Your task to perform on an android device: Add bose soundlink mini to the cart on bestbuy.com Image 0: 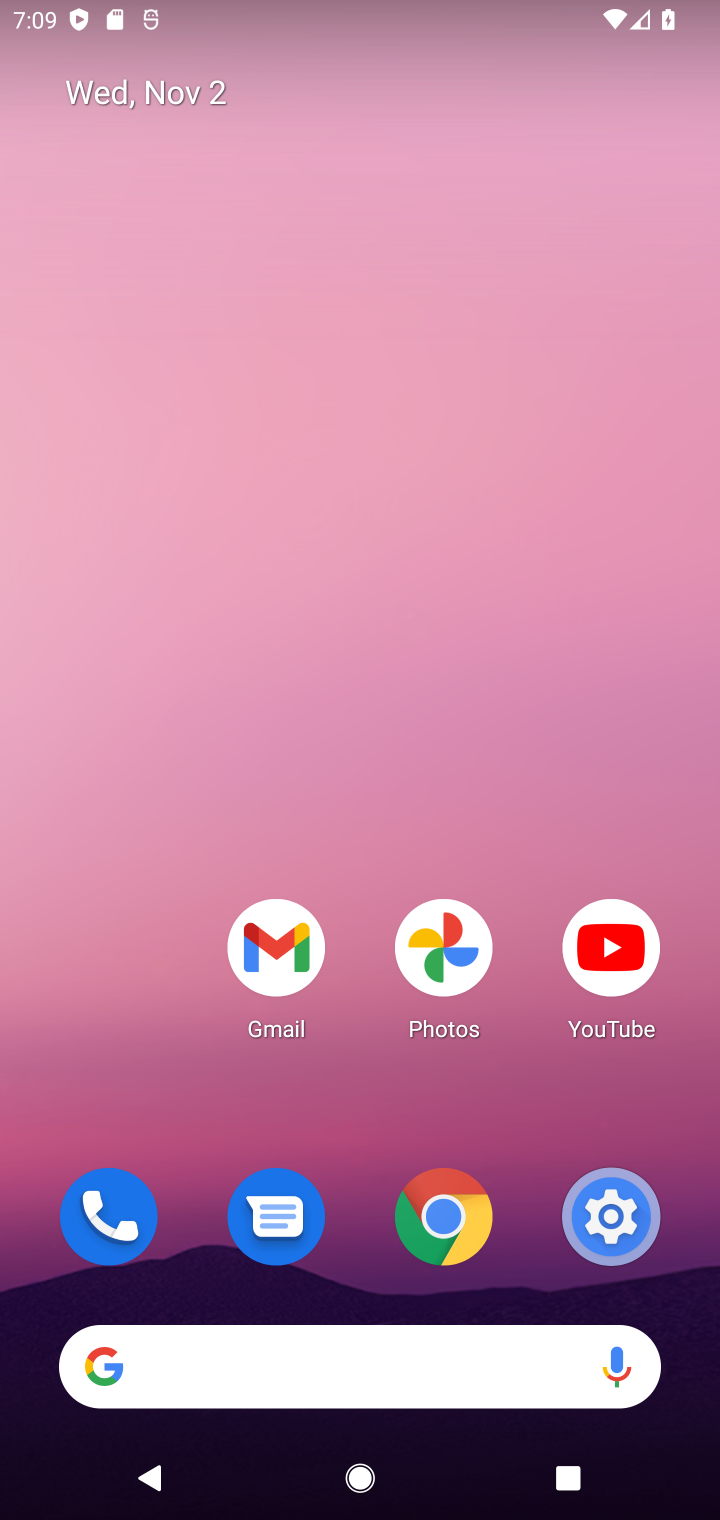
Step 0: click (441, 1251)
Your task to perform on an android device: Add bose soundlink mini to the cart on bestbuy.com Image 1: 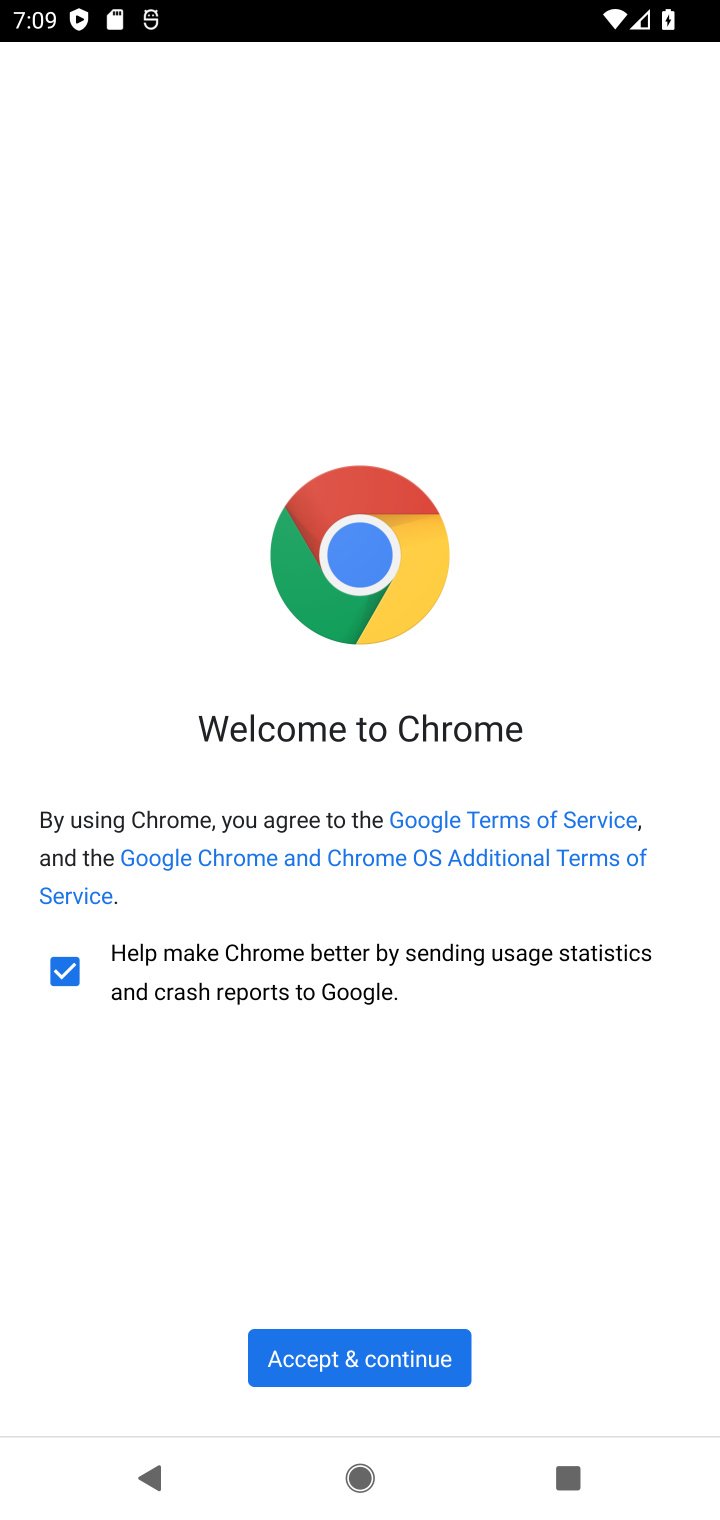
Step 1: click (356, 1366)
Your task to perform on an android device: Add bose soundlink mini to the cart on bestbuy.com Image 2: 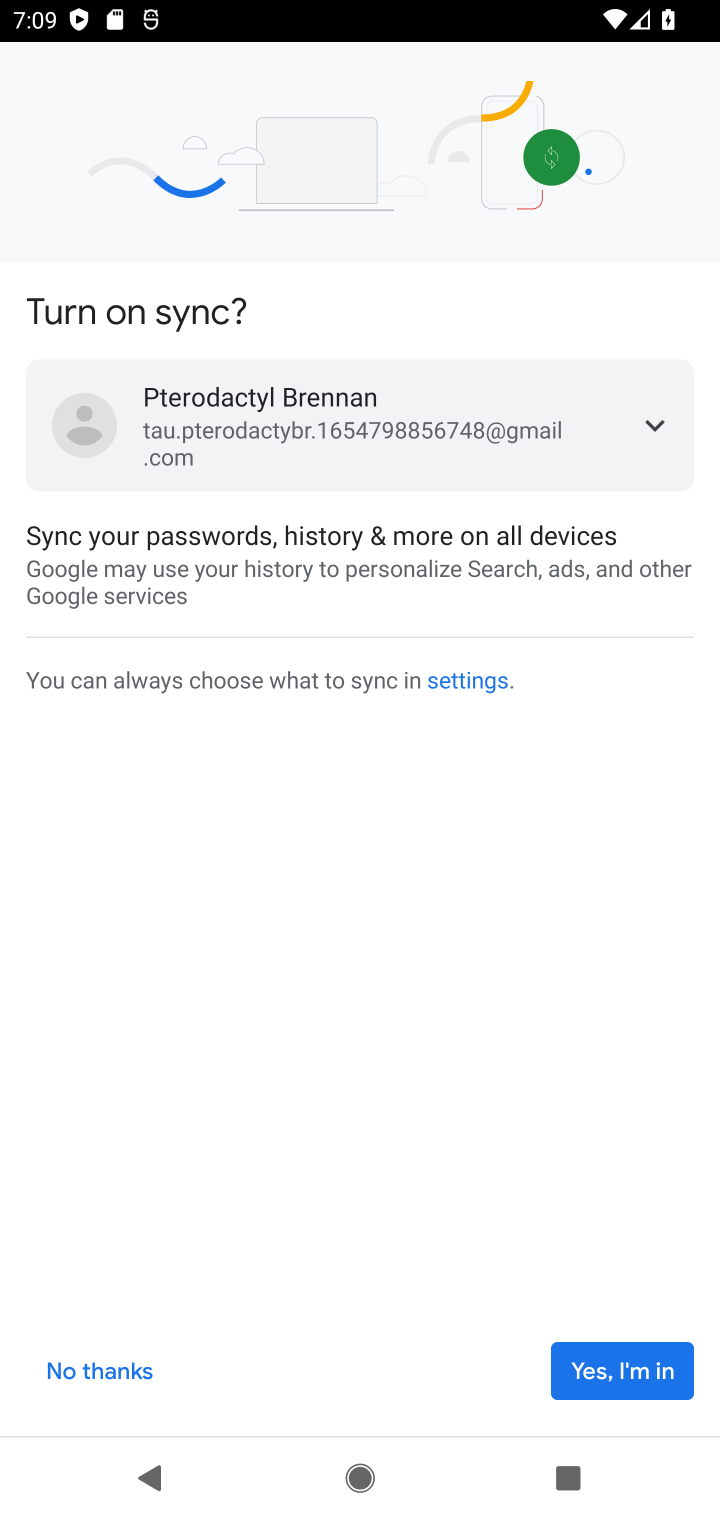
Step 2: click (604, 1385)
Your task to perform on an android device: Add bose soundlink mini to the cart on bestbuy.com Image 3: 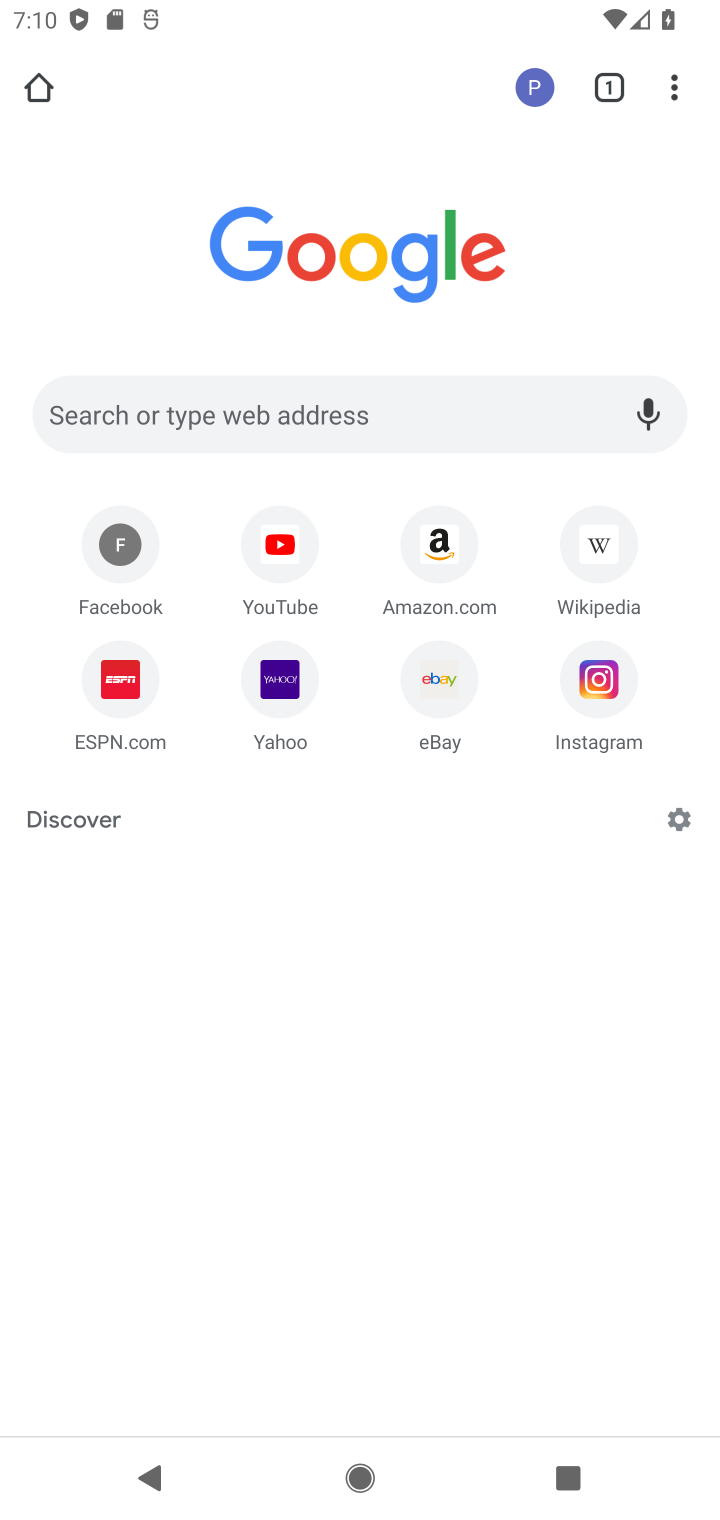
Step 3: click (431, 403)
Your task to perform on an android device: Add bose soundlink mini to the cart on bestbuy.com Image 4: 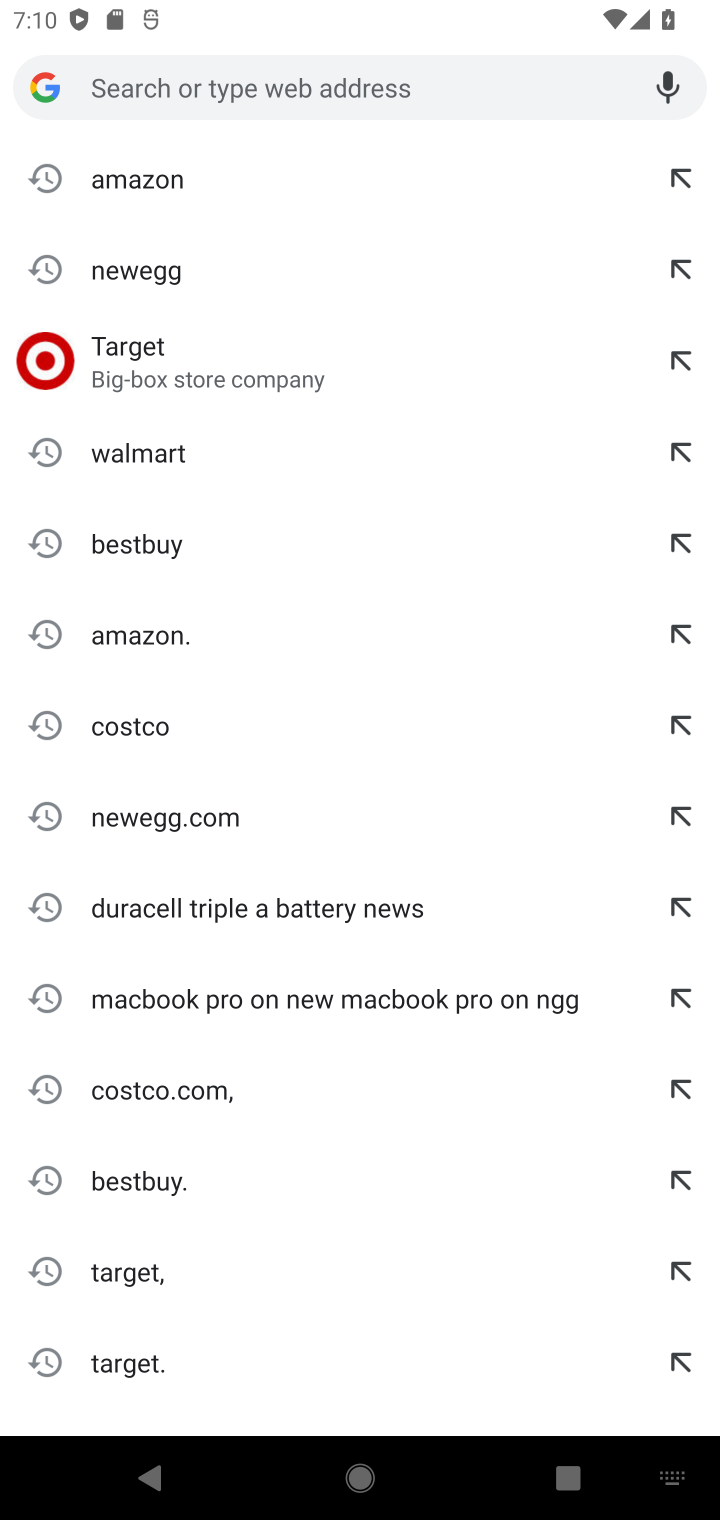
Step 4: type "bestbuy.com"
Your task to perform on an android device: Add bose soundlink mini to the cart on bestbuy.com Image 5: 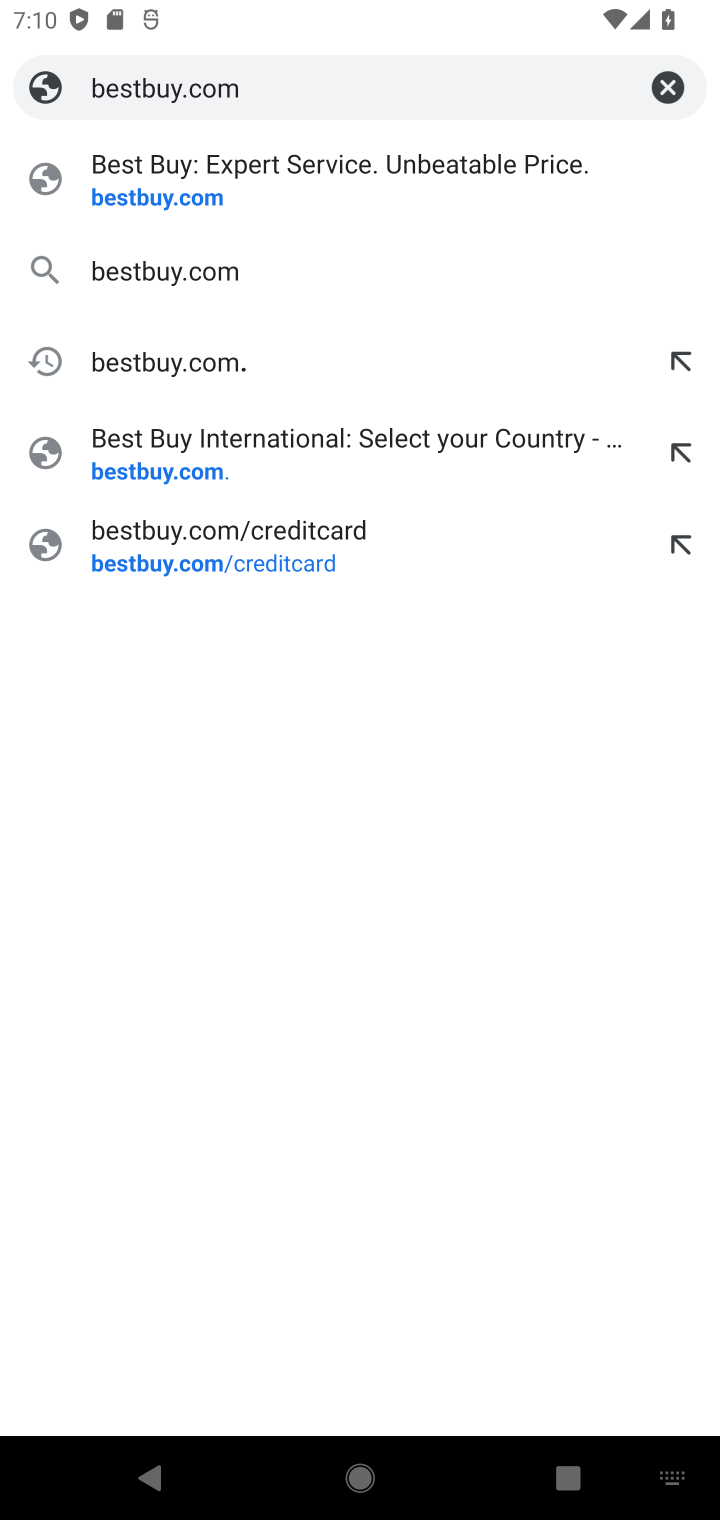
Step 5: press enter
Your task to perform on an android device: Add bose soundlink mini to the cart on bestbuy.com Image 6: 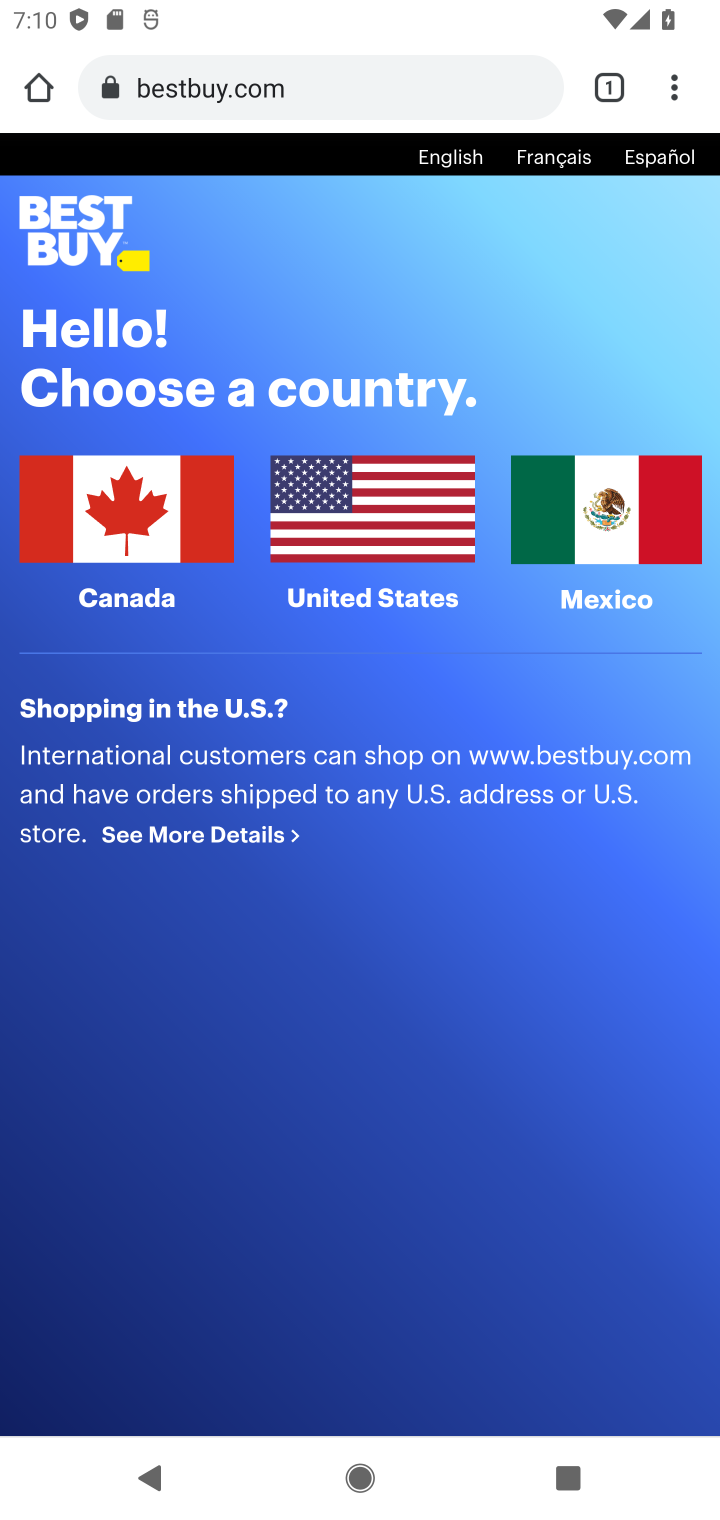
Step 6: click (369, 542)
Your task to perform on an android device: Add bose soundlink mini to the cart on bestbuy.com Image 7: 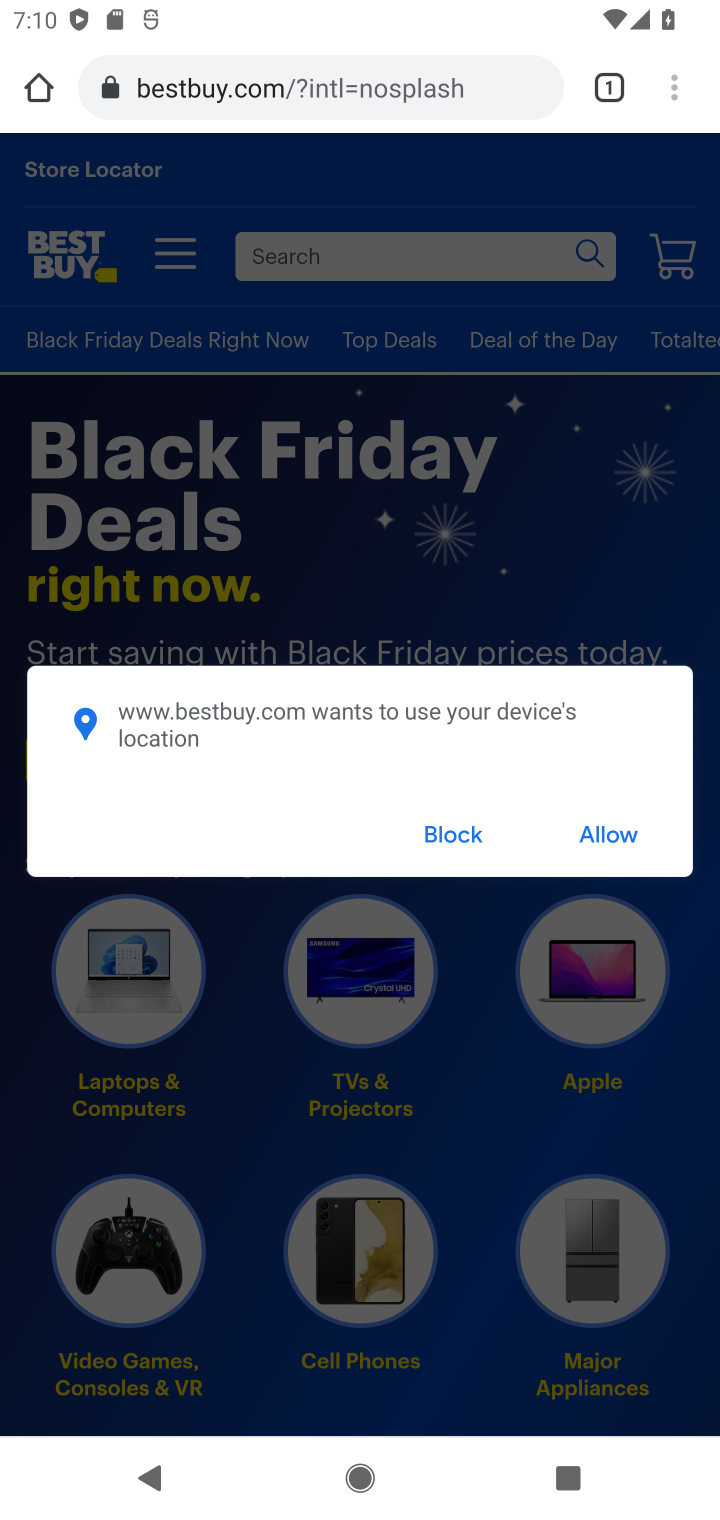
Step 7: click (414, 268)
Your task to perform on an android device: Add bose soundlink mini to the cart on bestbuy.com Image 8: 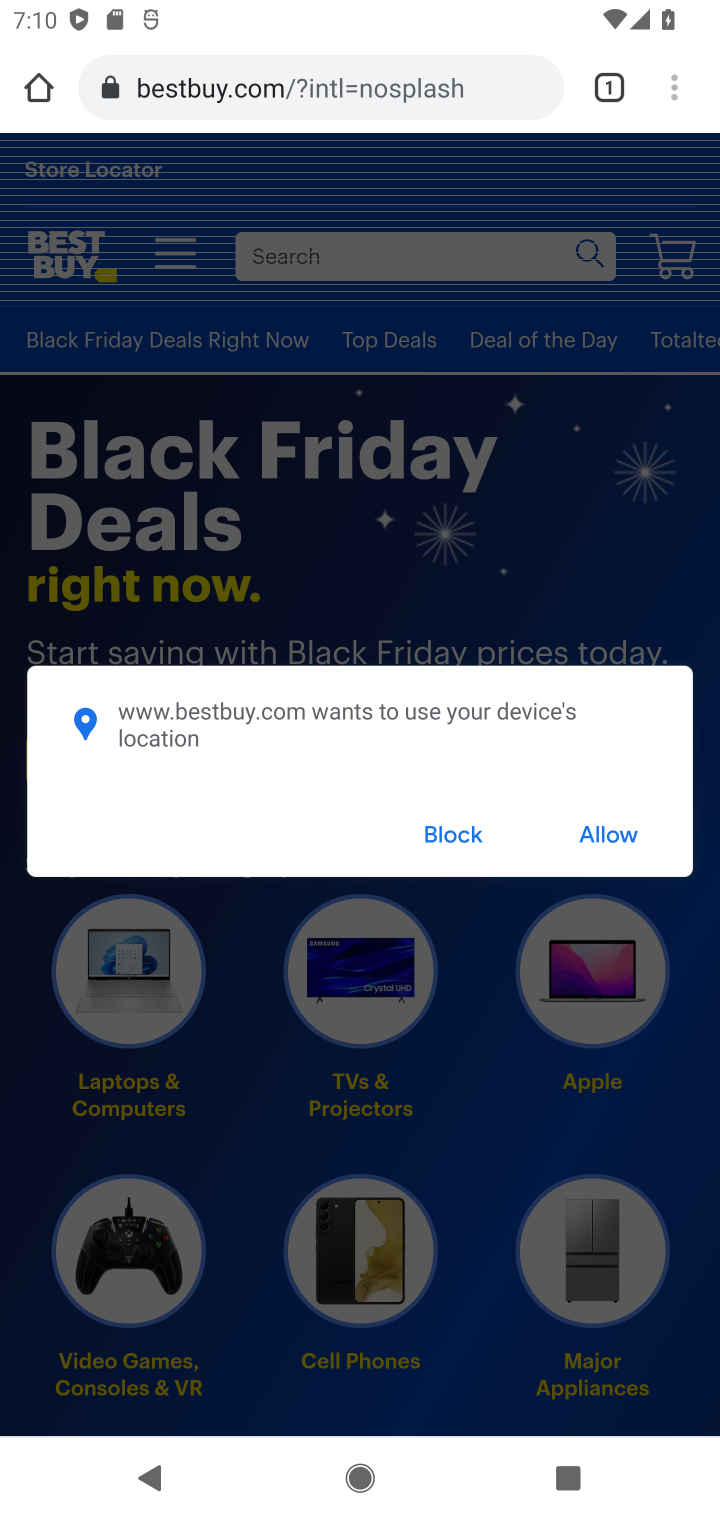
Step 8: click (592, 850)
Your task to perform on an android device: Add bose soundlink mini to the cart on bestbuy.com Image 9: 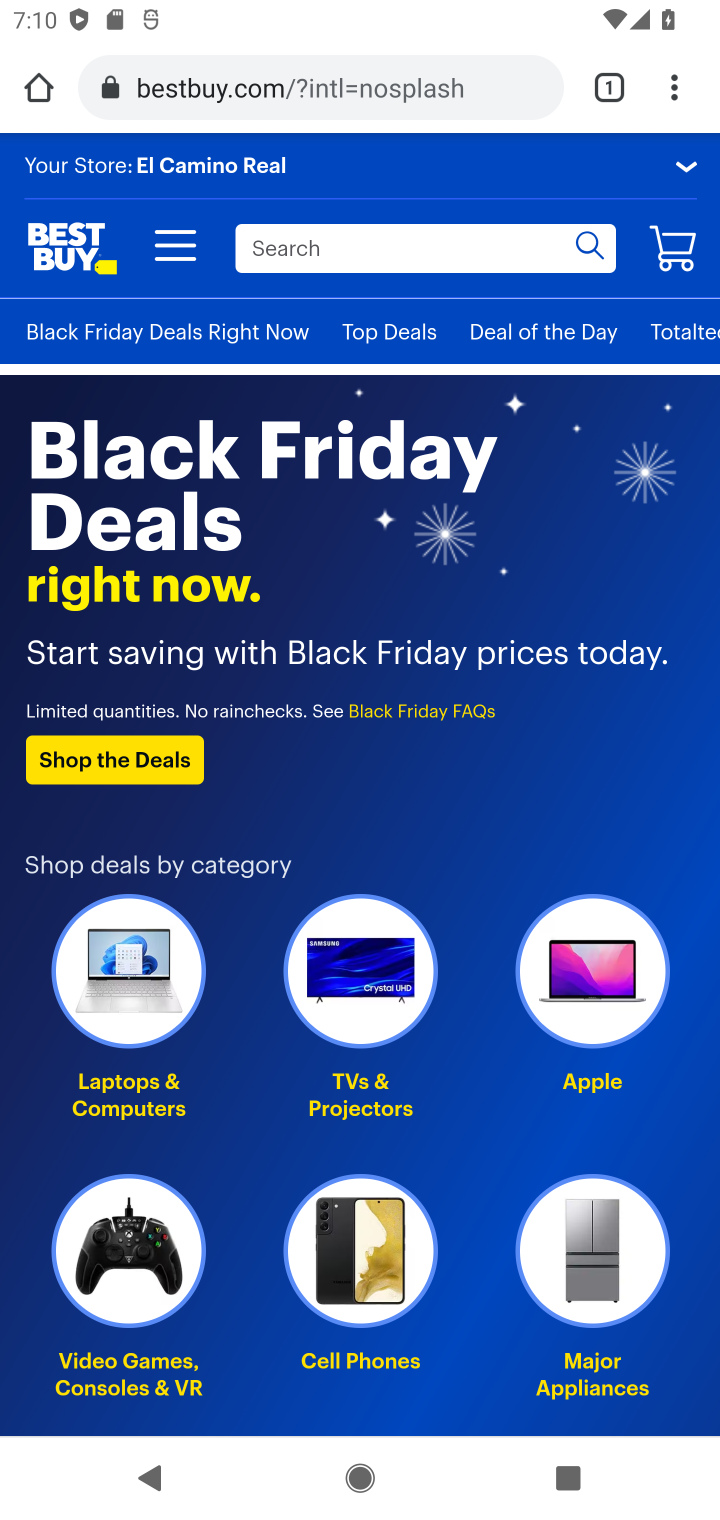
Step 9: click (418, 253)
Your task to perform on an android device: Add bose soundlink mini to the cart on bestbuy.com Image 10: 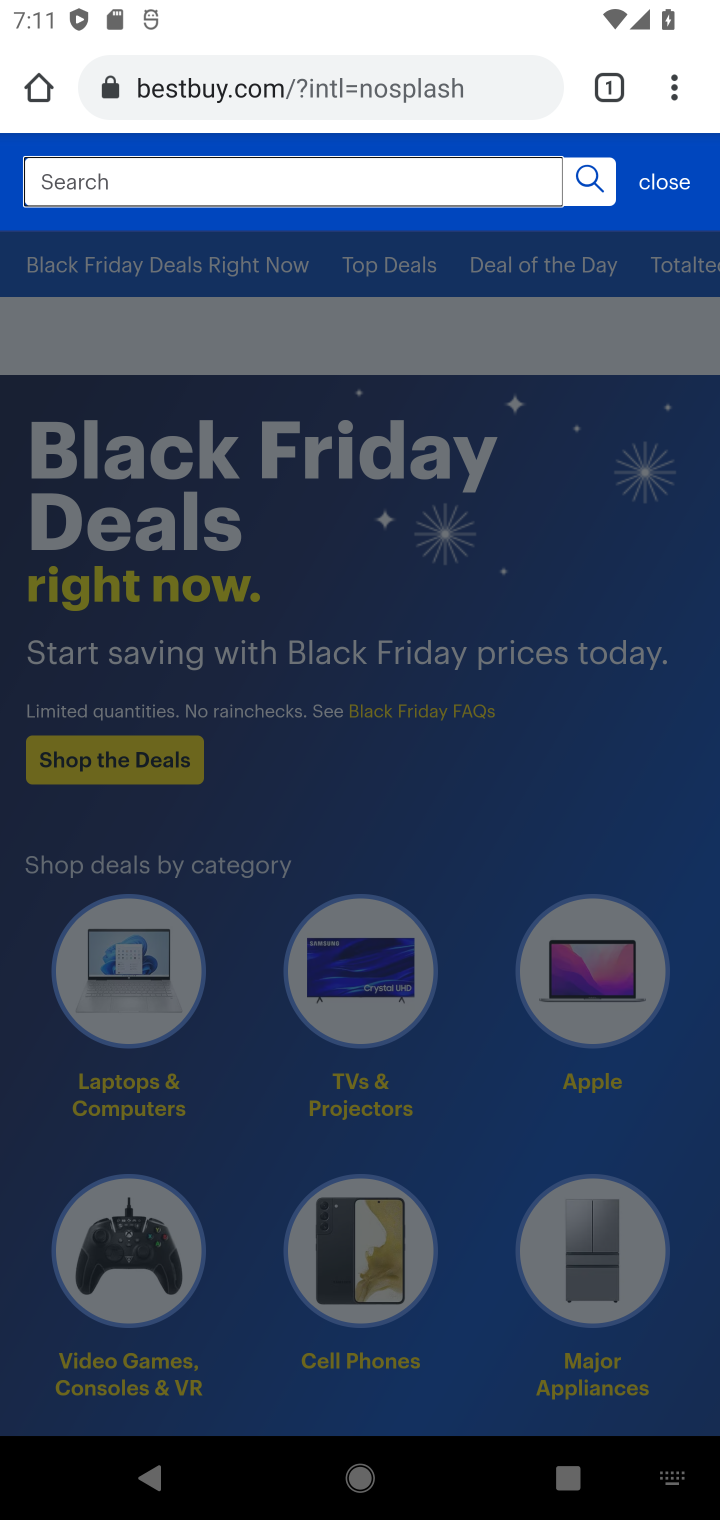
Step 10: type "bose soundlink mini"
Your task to perform on an android device: Add bose soundlink mini to the cart on bestbuy.com Image 11: 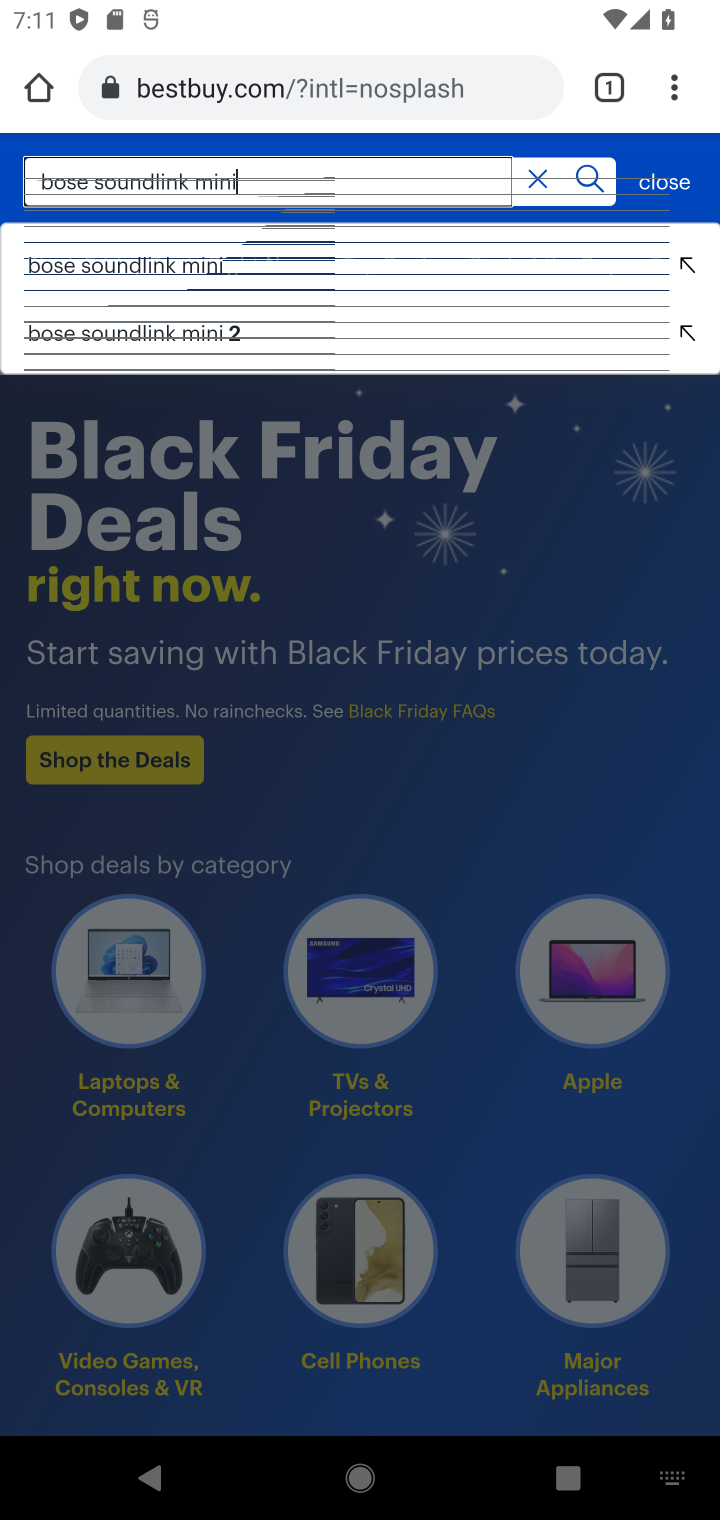
Step 11: click (263, 266)
Your task to perform on an android device: Add bose soundlink mini to the cart on bestbuy.com Image 12: 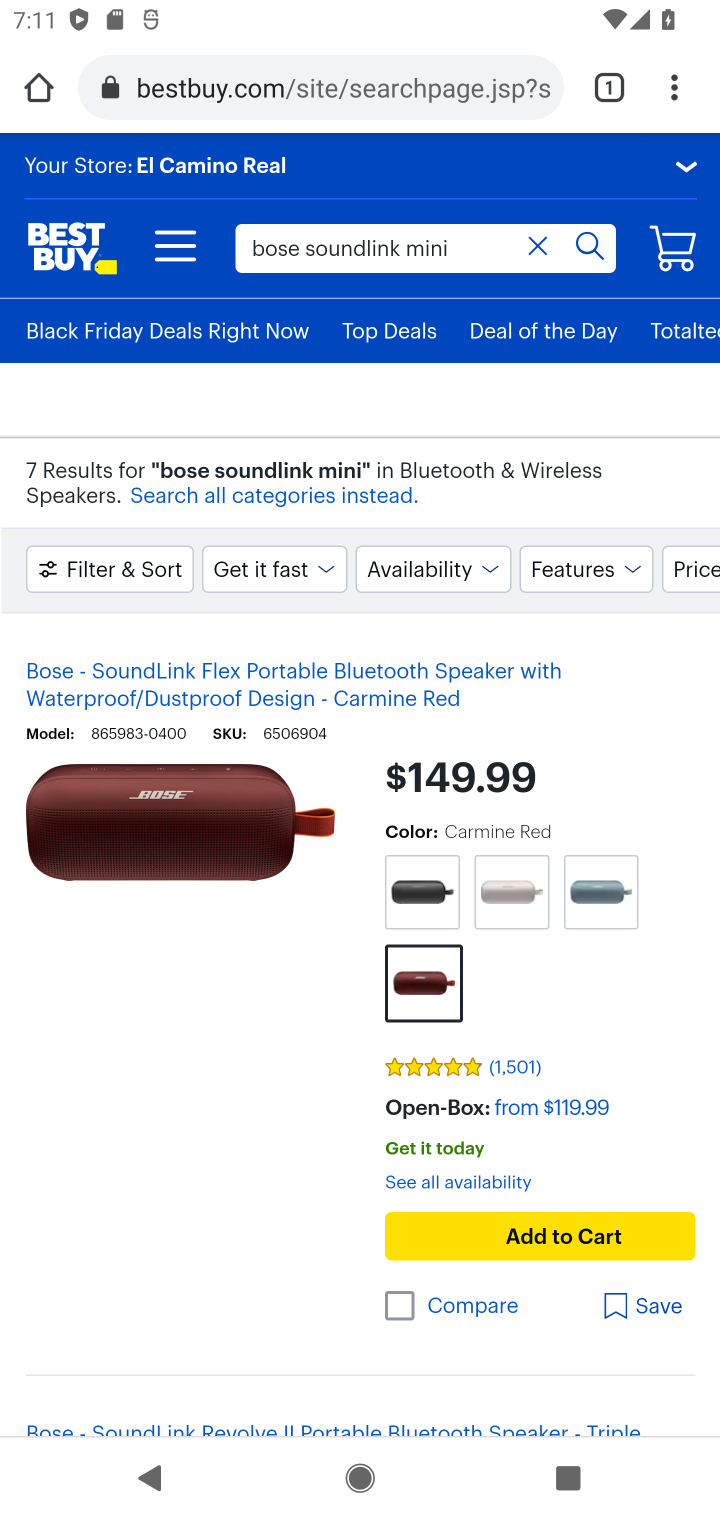
Step 12: click (190, 850)
Your task to perform on an android device: Add bose soundlink mini to the cart on bestbuy.com Image 13: 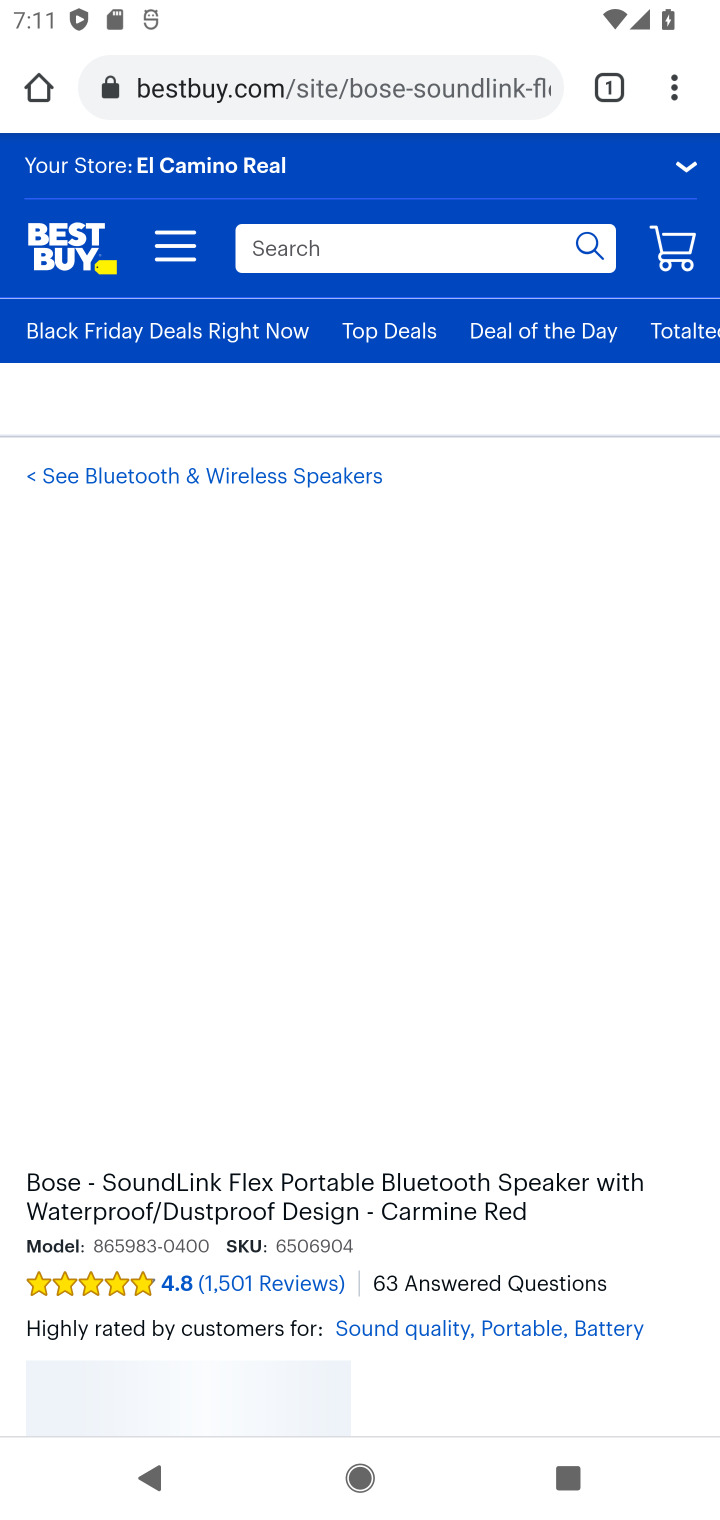
Step 13: drag from (652, 1302) to (525, 794)
Your task to perform on an android device: Add bose soundlink mini to the cart on bestbuy.com Image 14: 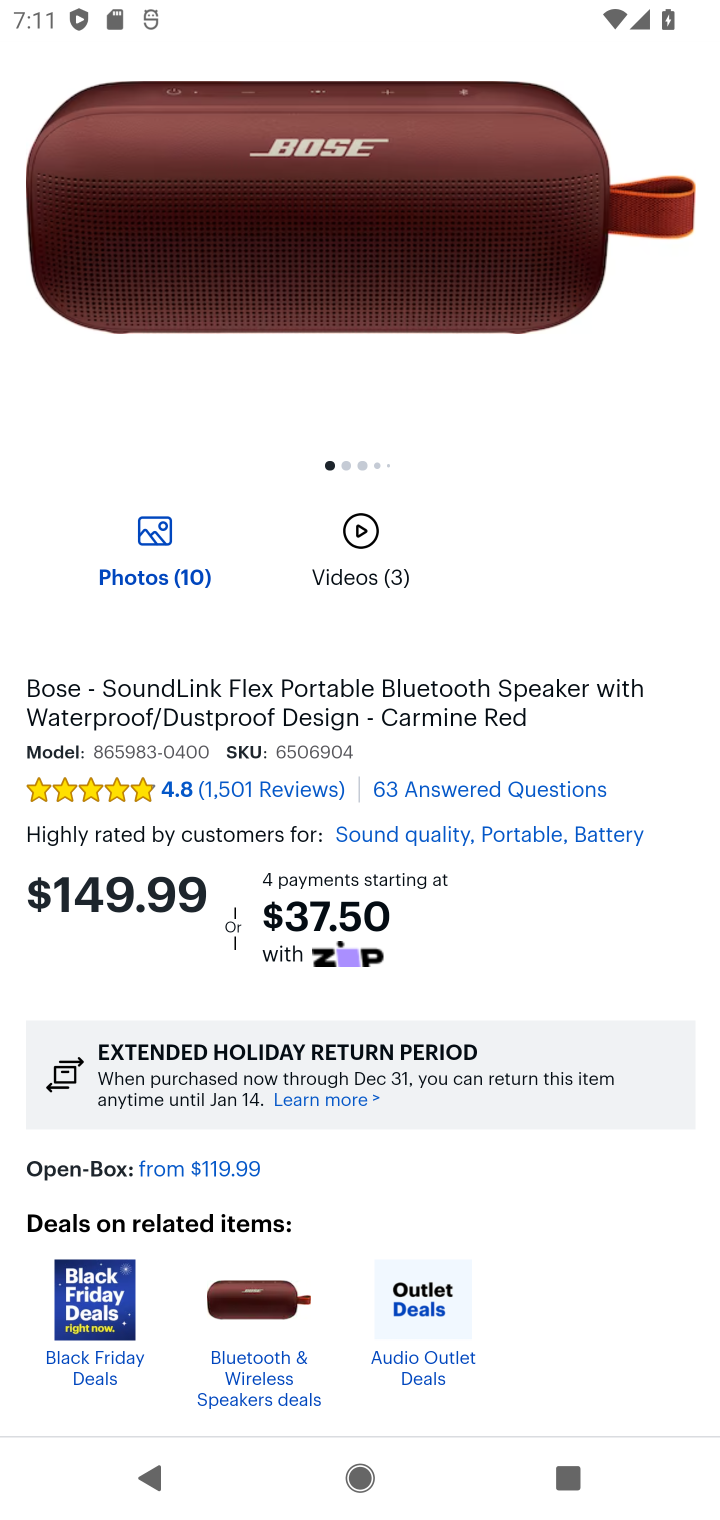
Step 14: drag from (578, 1358) to (508, 869)
Your task to perform on an android device: Add bose soundlink mini to the cart on bestbuy.com Image 15: 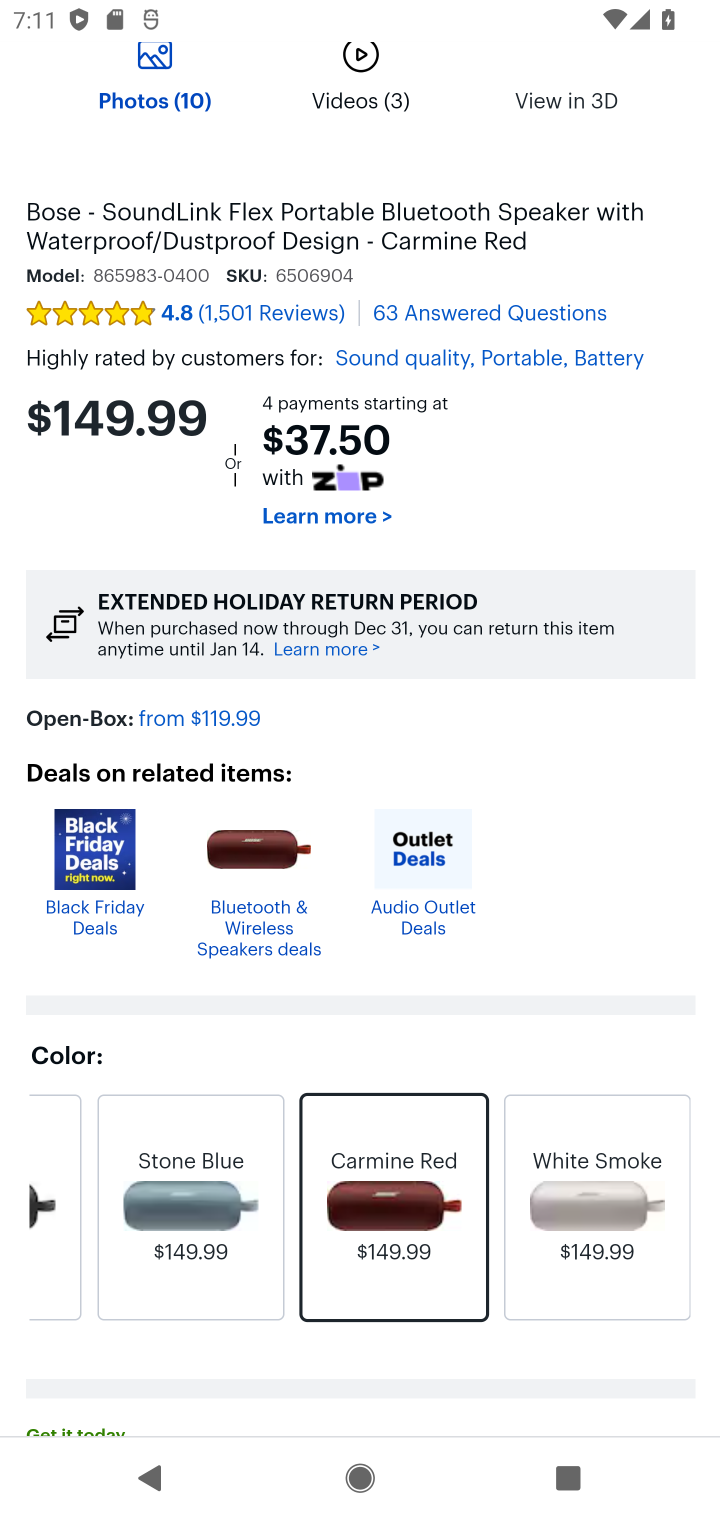
Step 15: drag from (499, 1349) to (381, 206)
Your task to perform on an android device: Add bose soundlink mini to the cart on bestbuy.com Image 16: 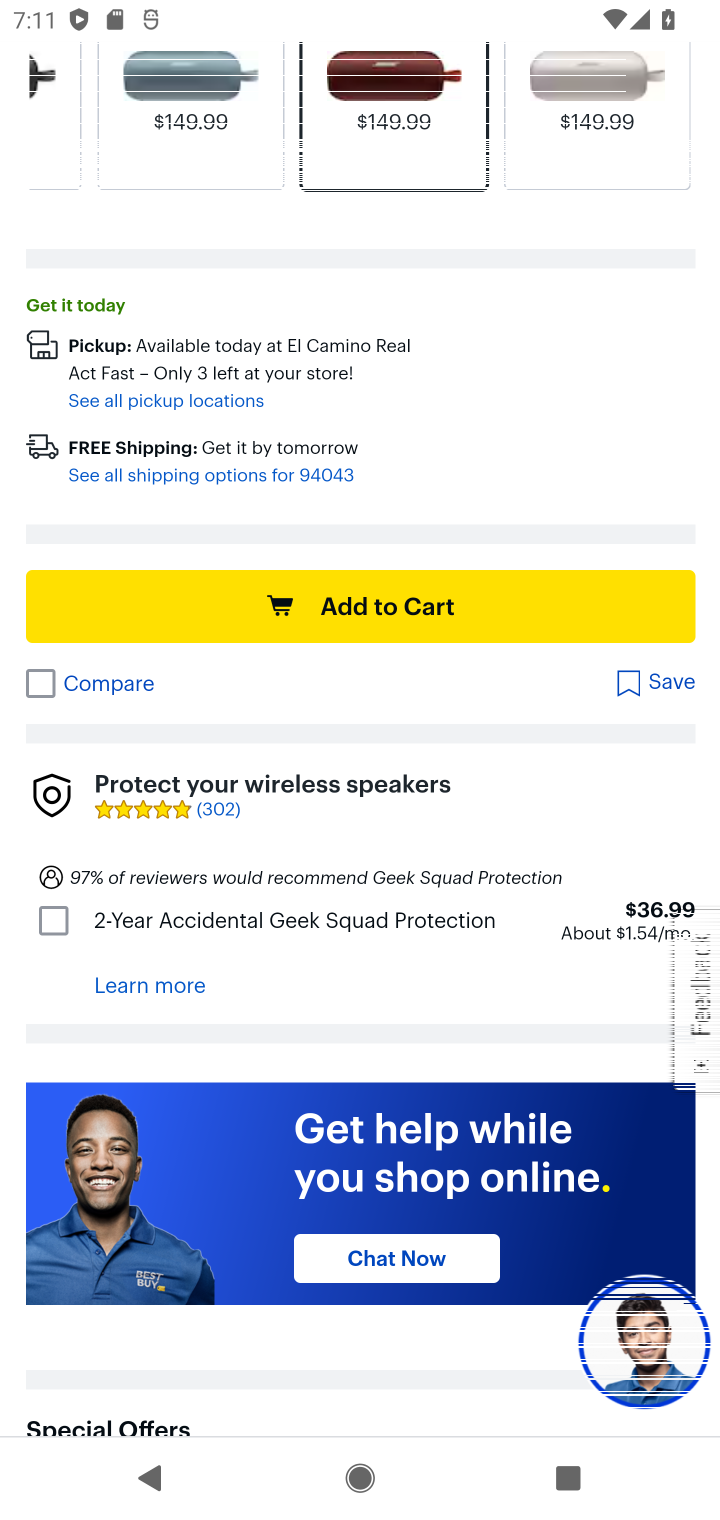
Step 16: click (442, 601)
Your task to perform on an android device: Add bose soundlink mini to the cart on bestbuy.com Image 17: 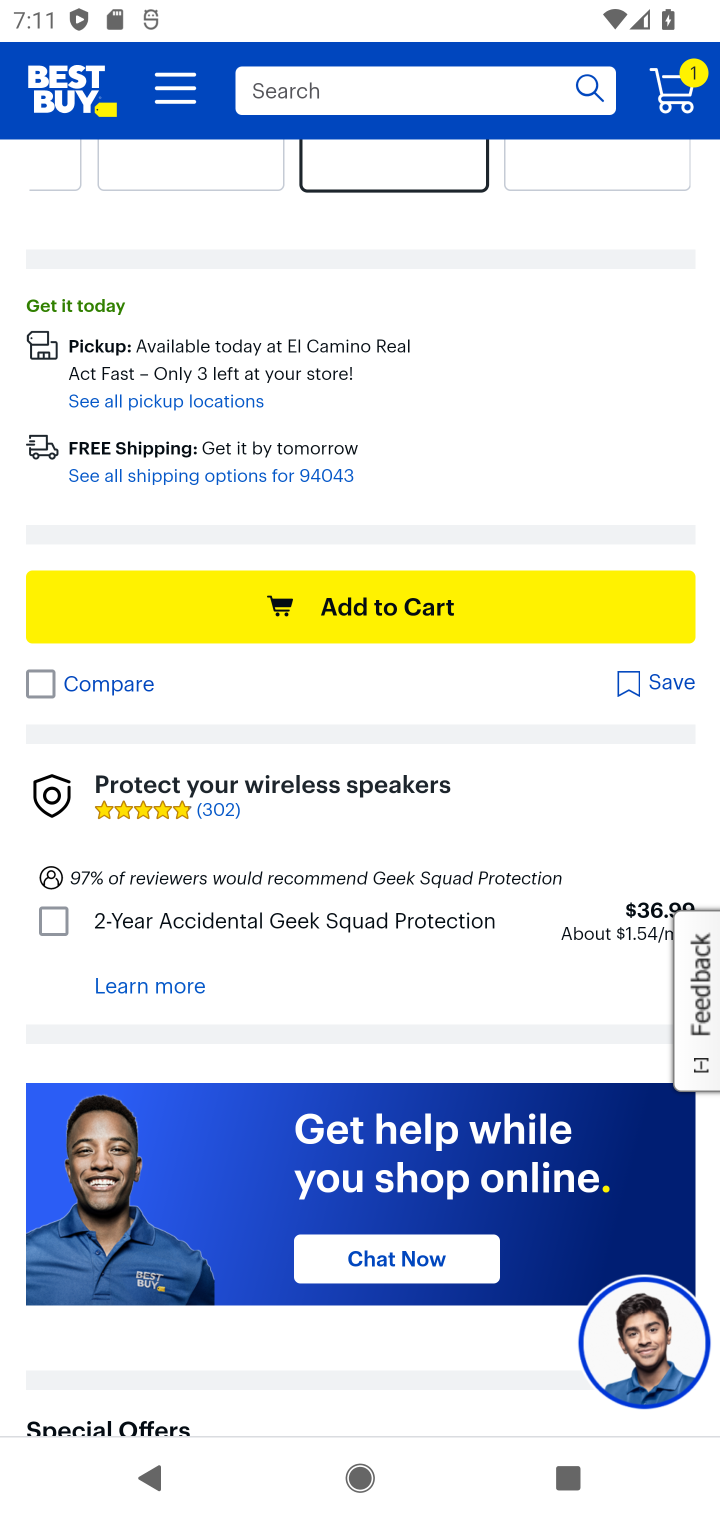
Step 17: task complete